Your task to perform on an android device: What's the weather today? Image 0: 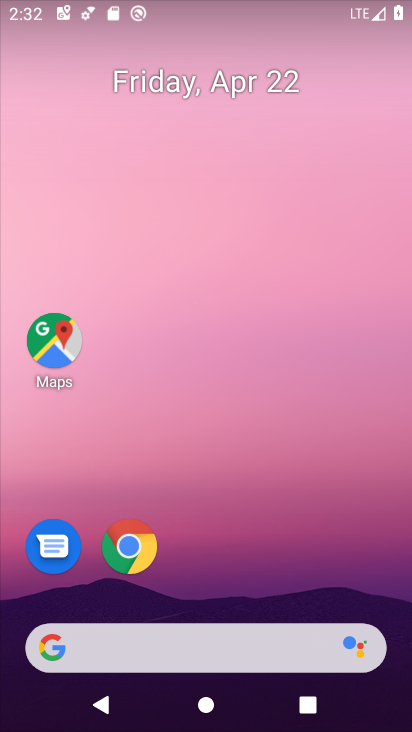
Step 0: drag from (241, 560) to (292, 113)
Your task to perform on an android device: What's the weather today? Image 1: 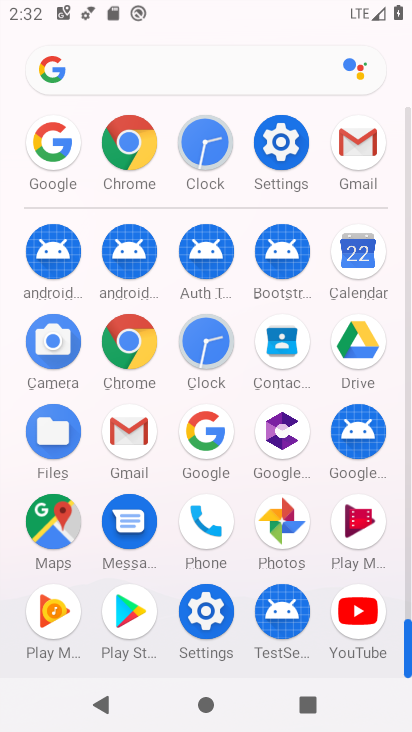
Step 1: click (196, 442)
Your task to perform on an android device: What's the weather today? Image 2: 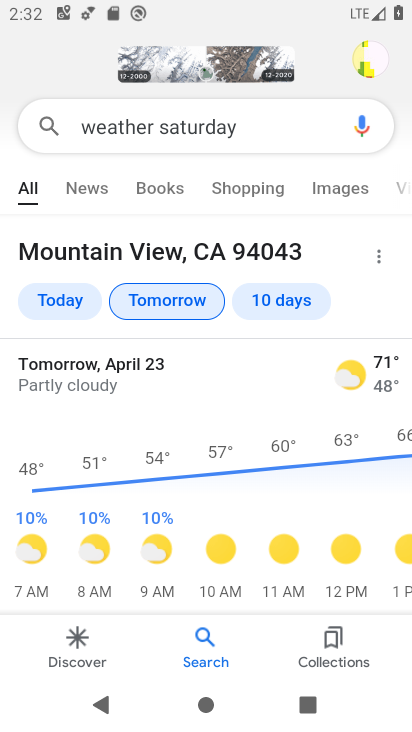
Step 2: click (48, 301)
Your task to perform on an android device: What's the weather today? Image 3: 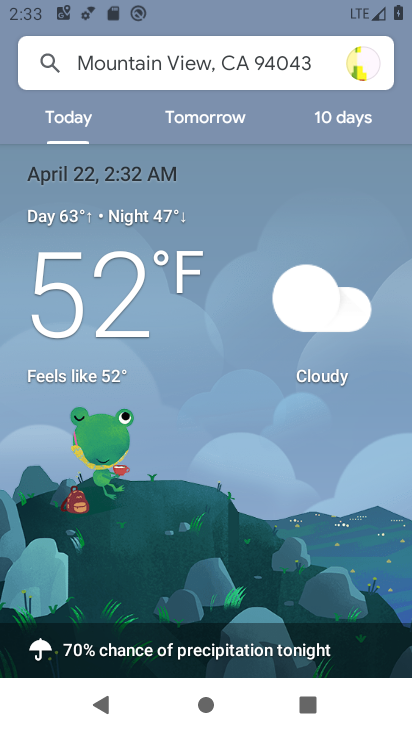
Step 3: task complete